Your task to perform on an android device: Show me the alarms in the clock app Image 0: 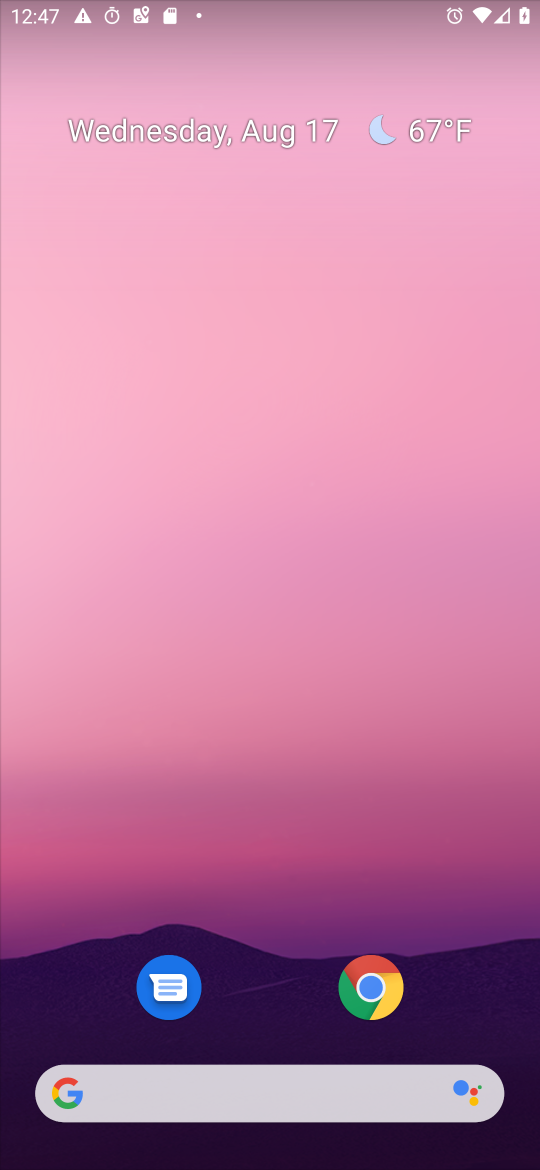
Step 0: drag from (20, 1107) to (321, 508)
Your task to perform on an android device: Show me the alarms in the clock app Image 1: 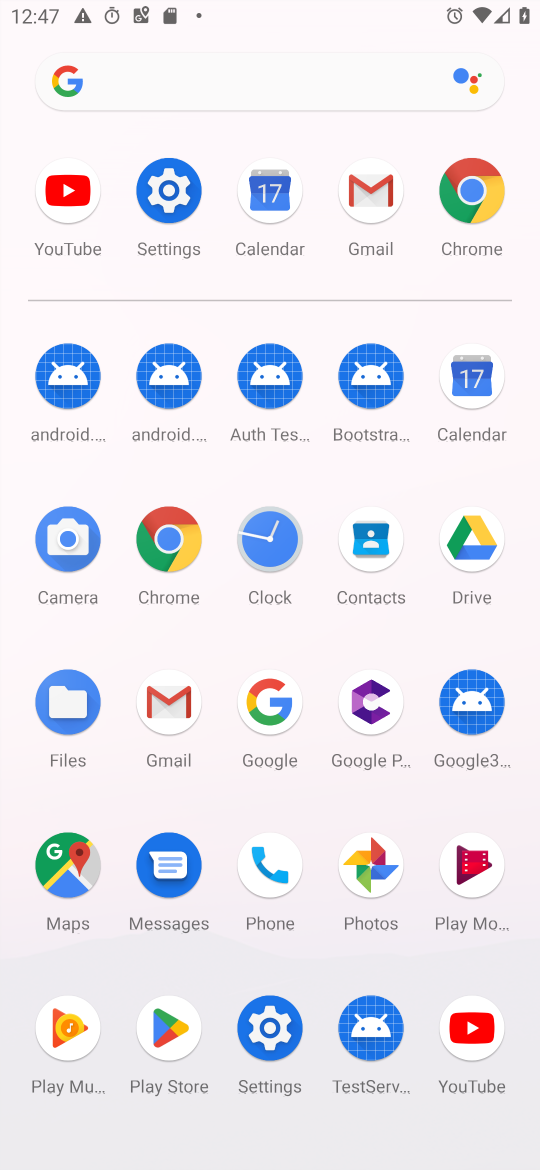
Step 1: click (285, 540)
Your task to perform on an android device: Show me the alarms in the clock app Image 2: 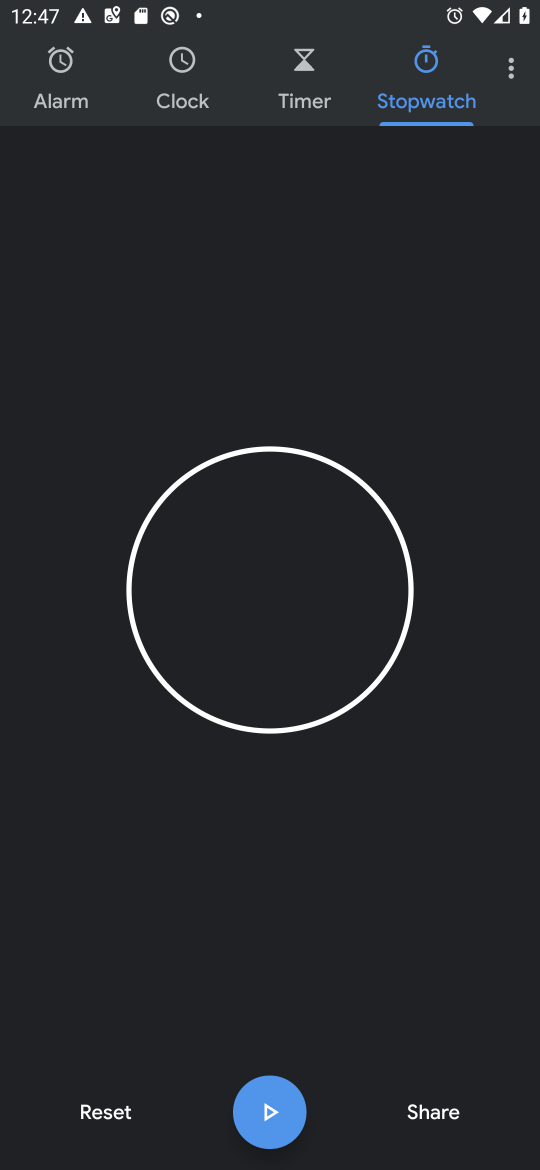
Step 2: click (182, 74)
Your task to perform on an android device: Show me the alarms in the clock app Image 3: 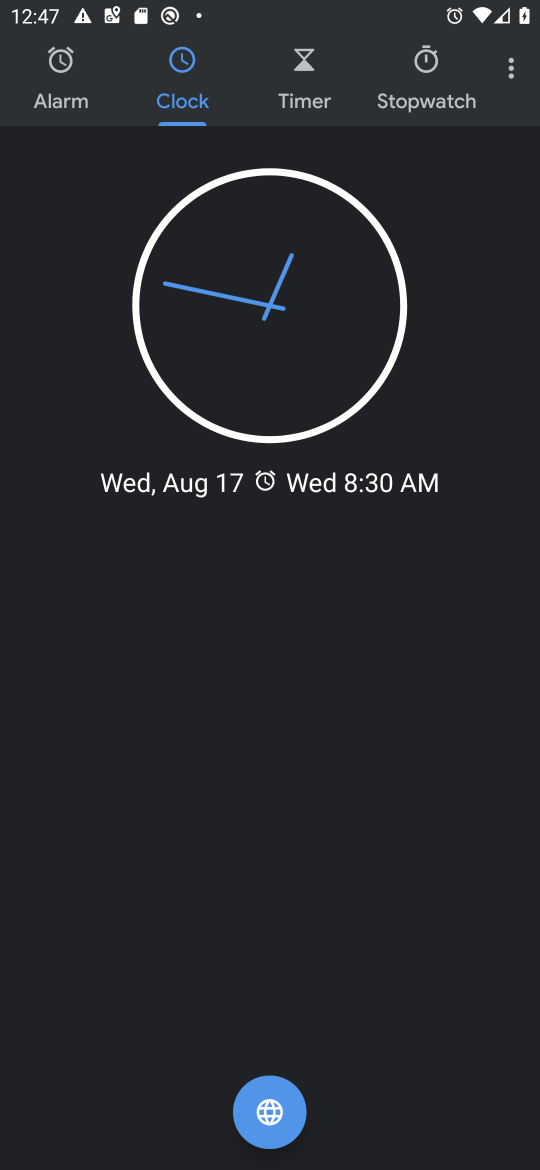
Step 3: click (37, 93)
Your task to perform on an android device: Show me the alarms in the clock app Image 4: 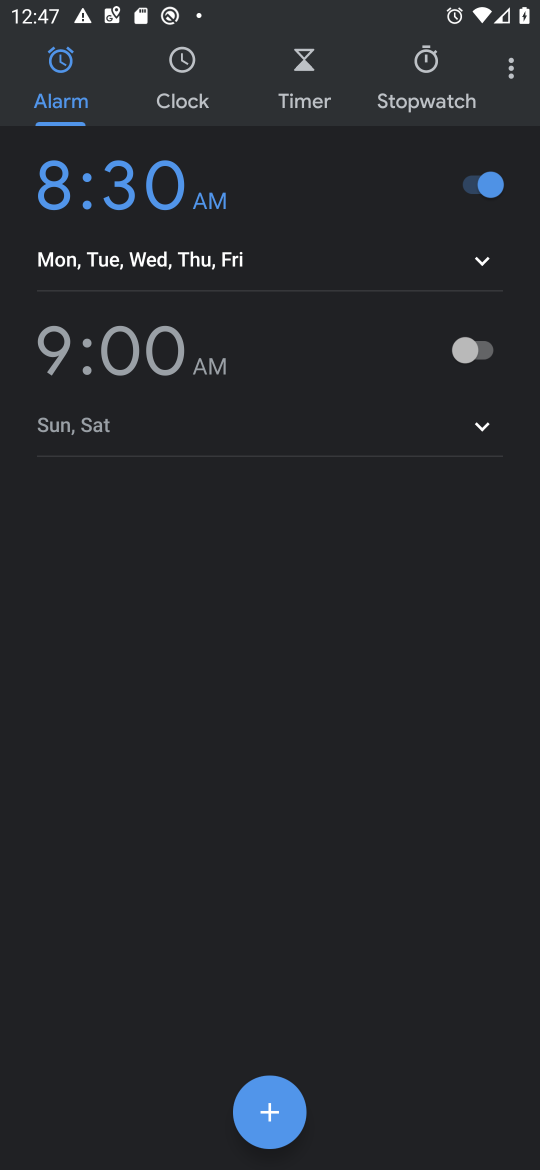
Step 4: task complete